Your task to perform on an android device: Search for "dell xps" on amazon, select the first entry, add it to the cart, then select checkout. Image 0: 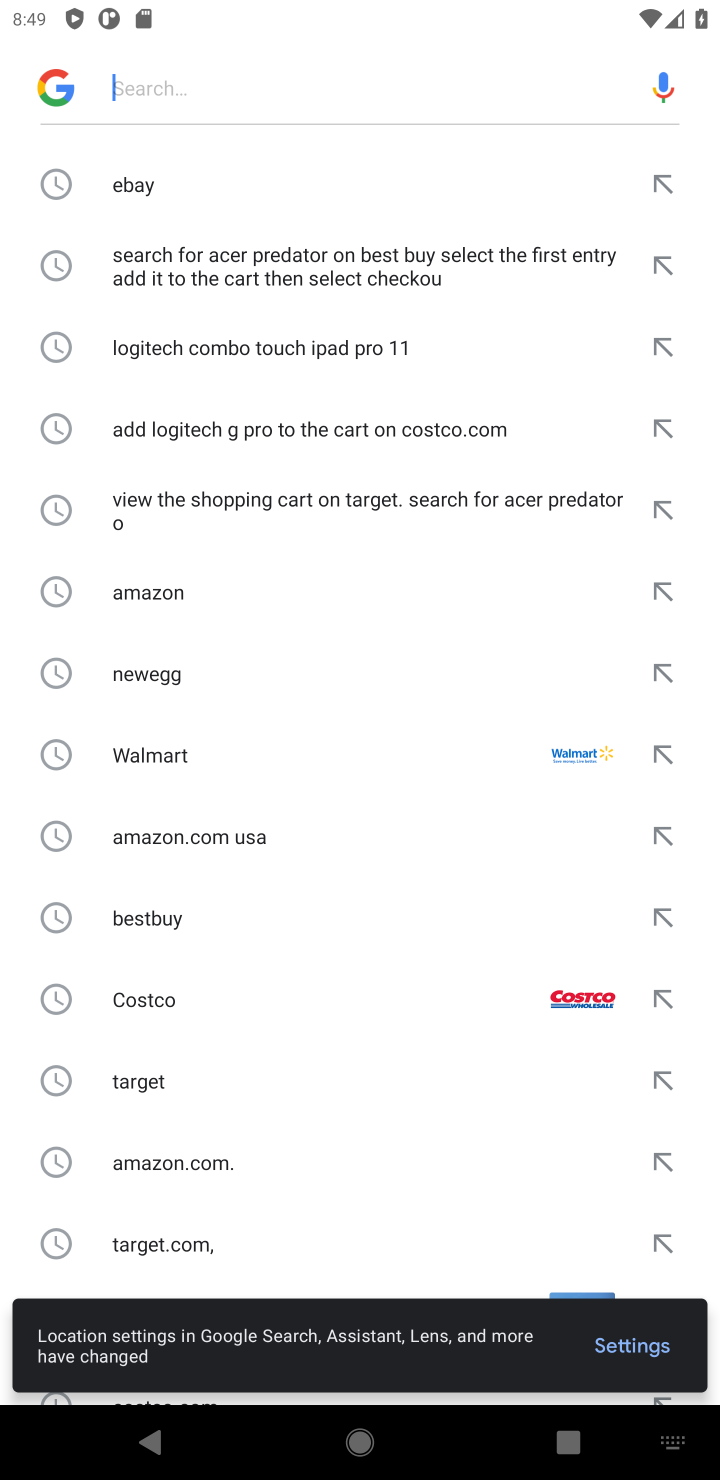
Step 0: press home button
Your task to perform on an android device: Search for "dell xps" on amazon, select the first entry, add it to the cart, then select checkout. Image 1: 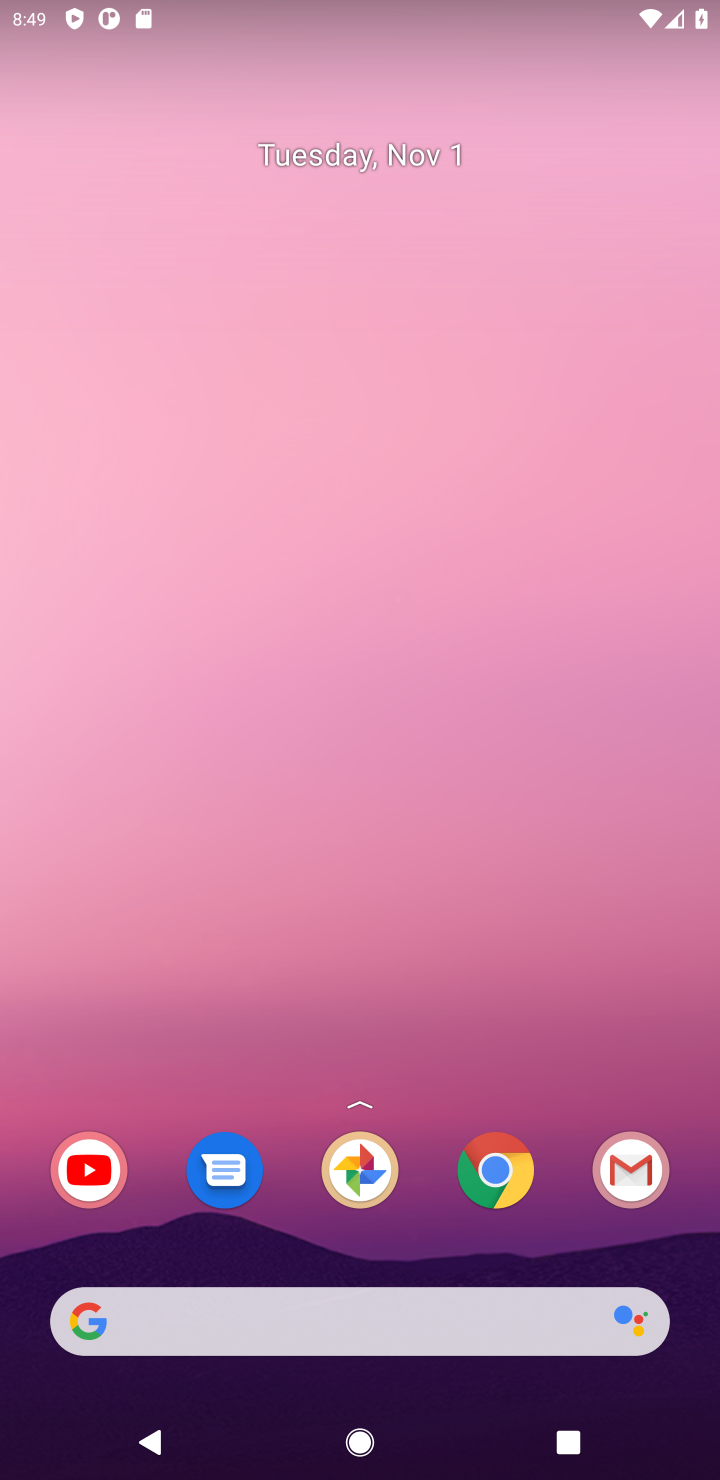
Step 1: click (510, 1176)
Your task to perform on an android device: Search for "dell xps" on amazon, select the first entry, add it to the cart, then select checkout. Image 2: 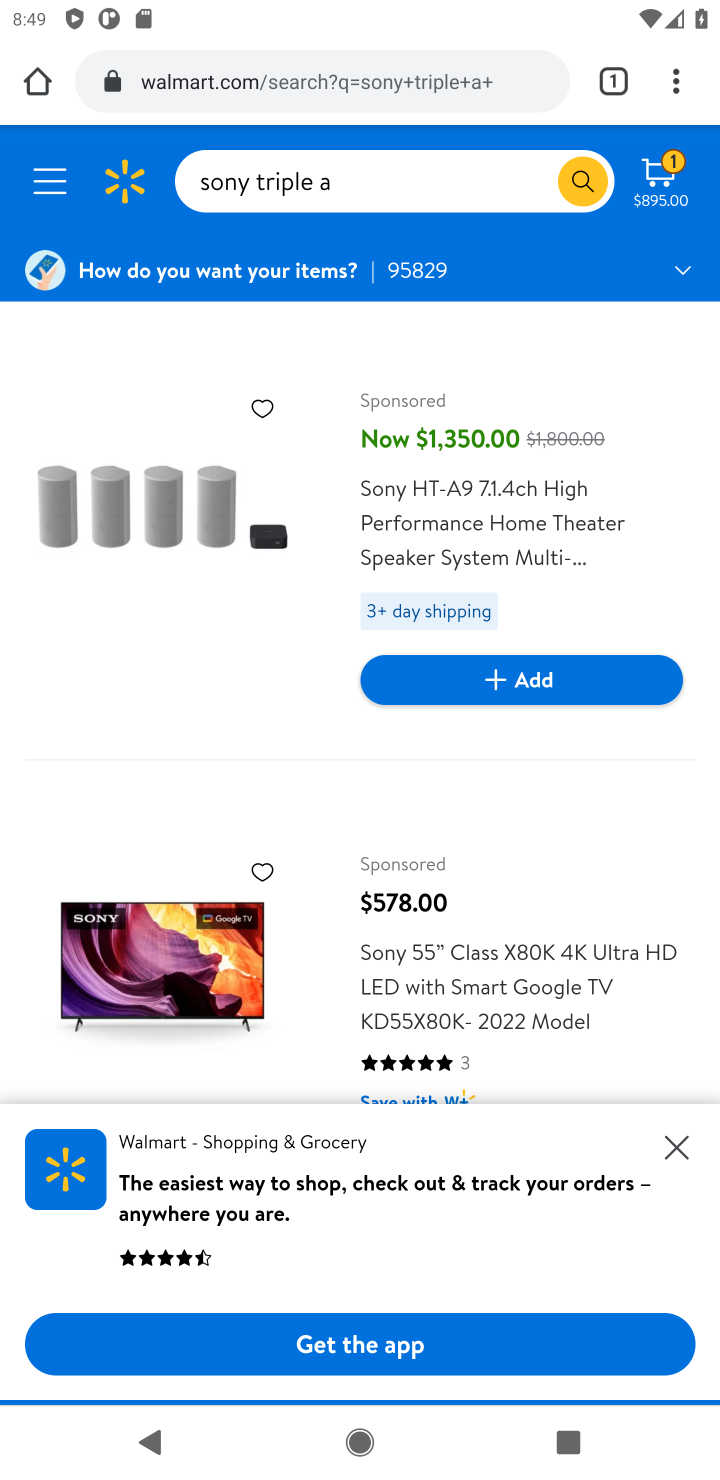
Step 2: click (333, 91)
Your task to perform on an android device: Search for "dell xps" on amazon, select the first entry, add it to the cart, then select checkout. Image 3: 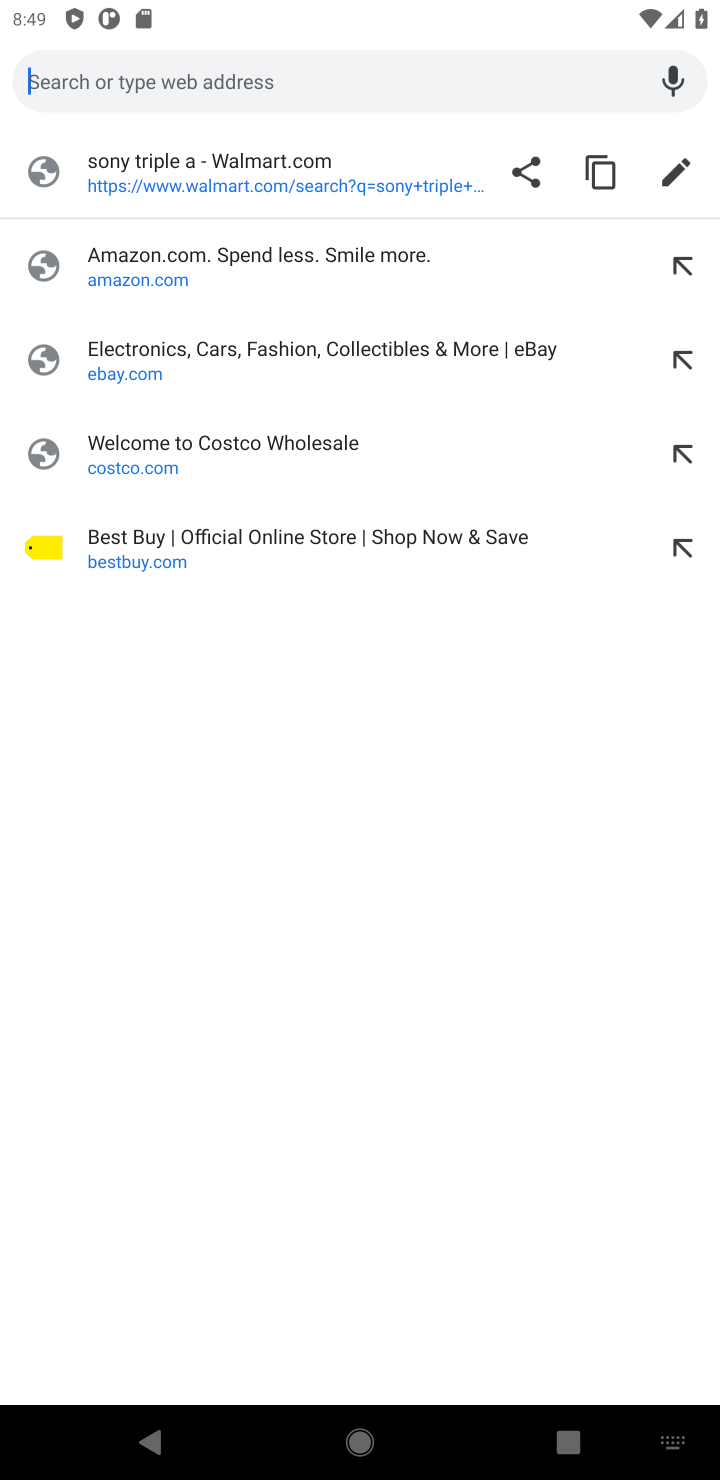
Step 3: type "amazon"
Your task to perform on an android device: Search for "dell xps" on amazon, select the first entry, add it to the cart, then select checkout. Image 4: 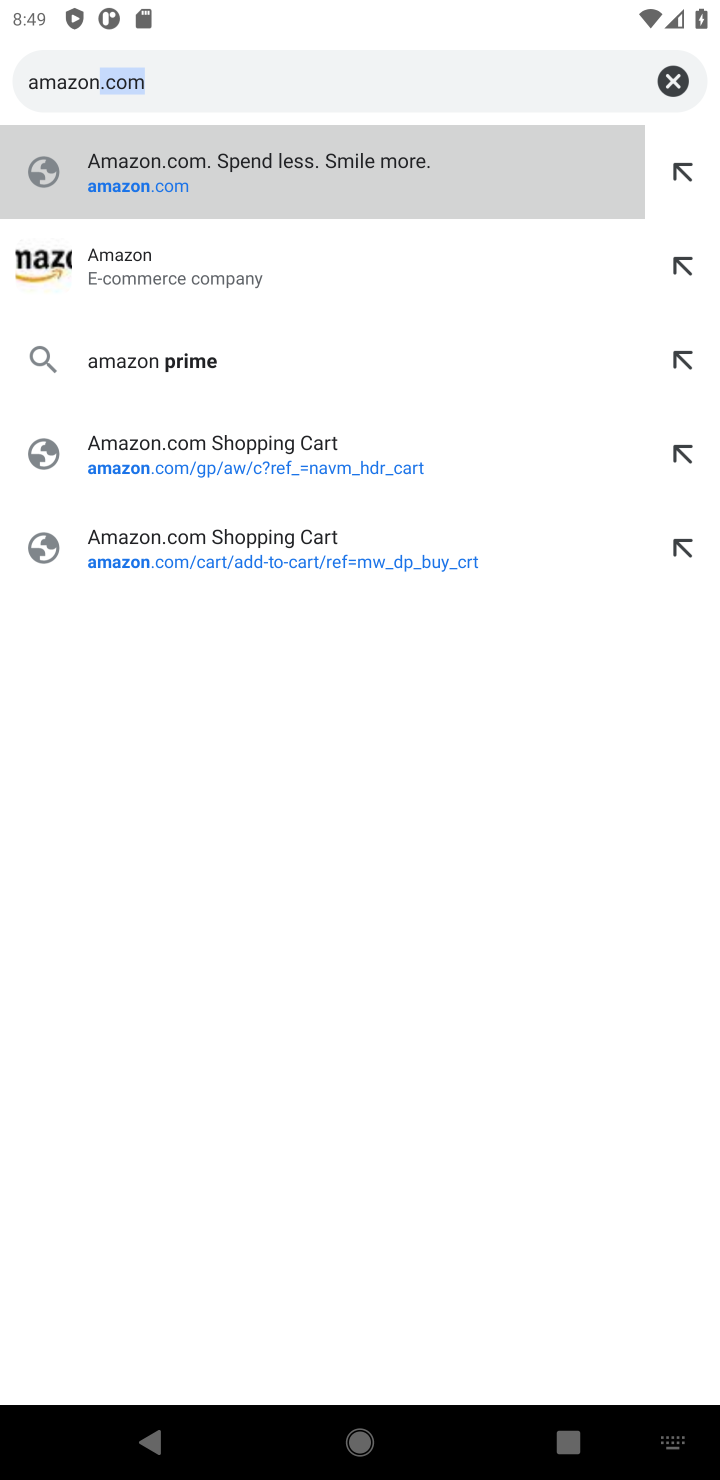
Step 4: type ""
Your task to perform on an android device: Search for "dell xps" on amazon, select the first entry, add it to the cart, then select checkout. Image 5: 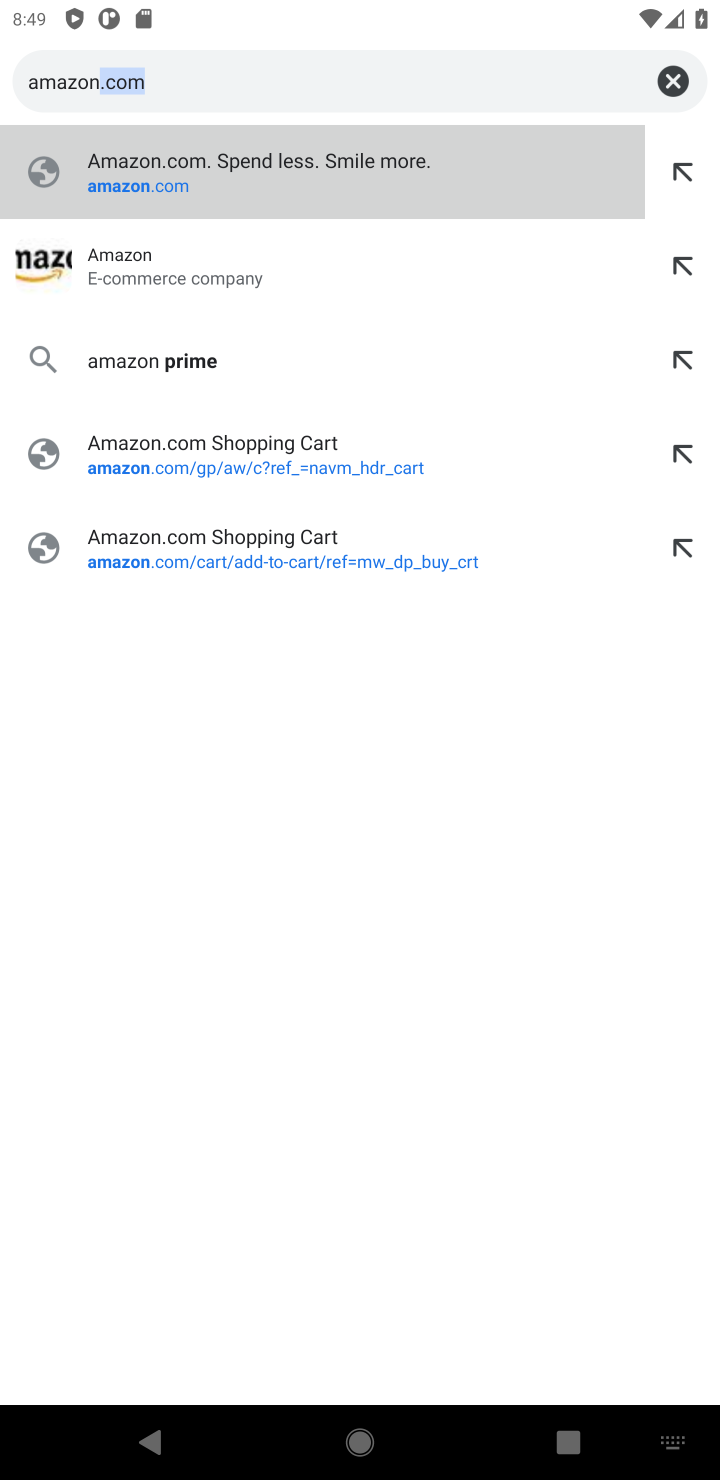
Step 5: press enter
Your task to perform on an android device: Search for "dell xps" on amazon, select the first entry, add it to the cart, then select checkout. Image 6: 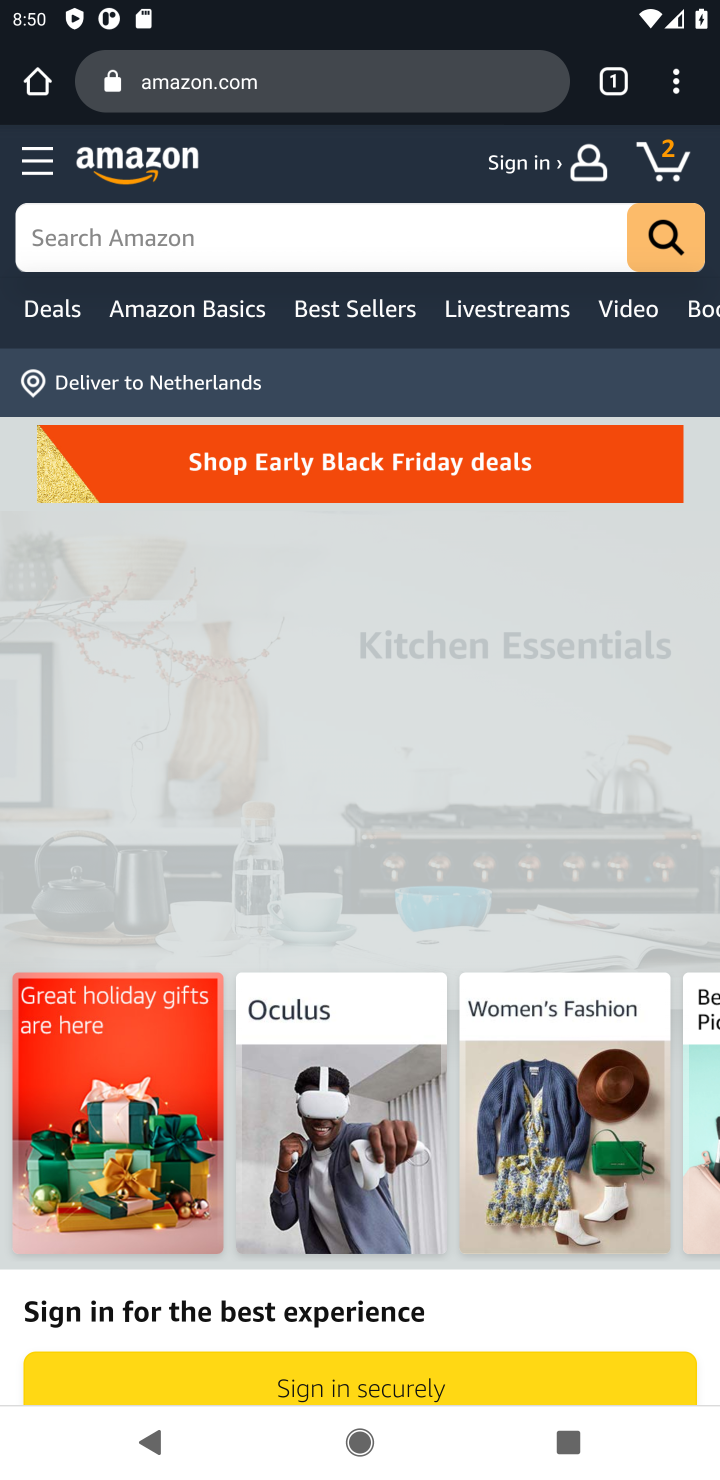
Step 6: click (230, 239)
Your task to perform on an android device: Search for "dell xps" on amazon, select the first entry, add it to the cart, then select checkout. Image 7: 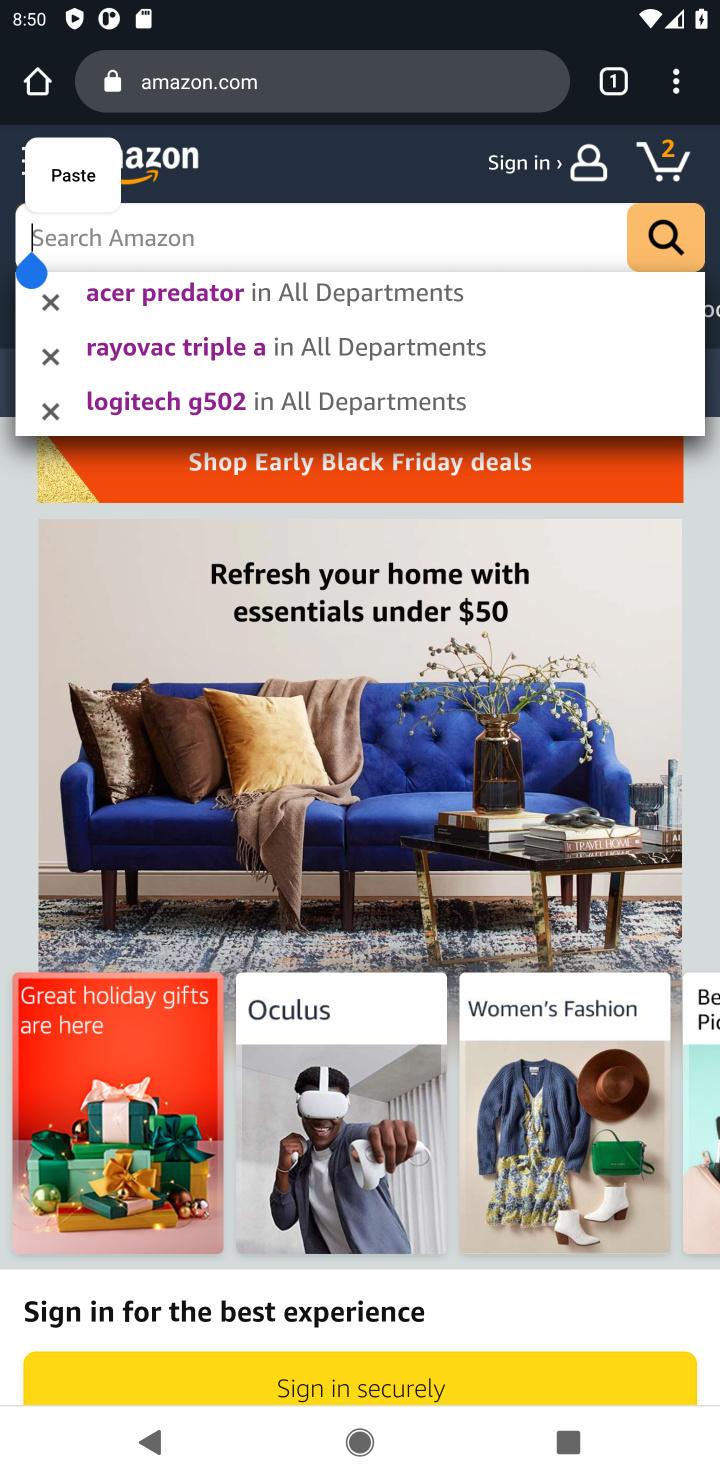
Step 7: type "dell xps"
Your task to perform on an android device: Search for "dell xps" on amazon, select the first entry, add it to the cart, then select checkout. Image 8: 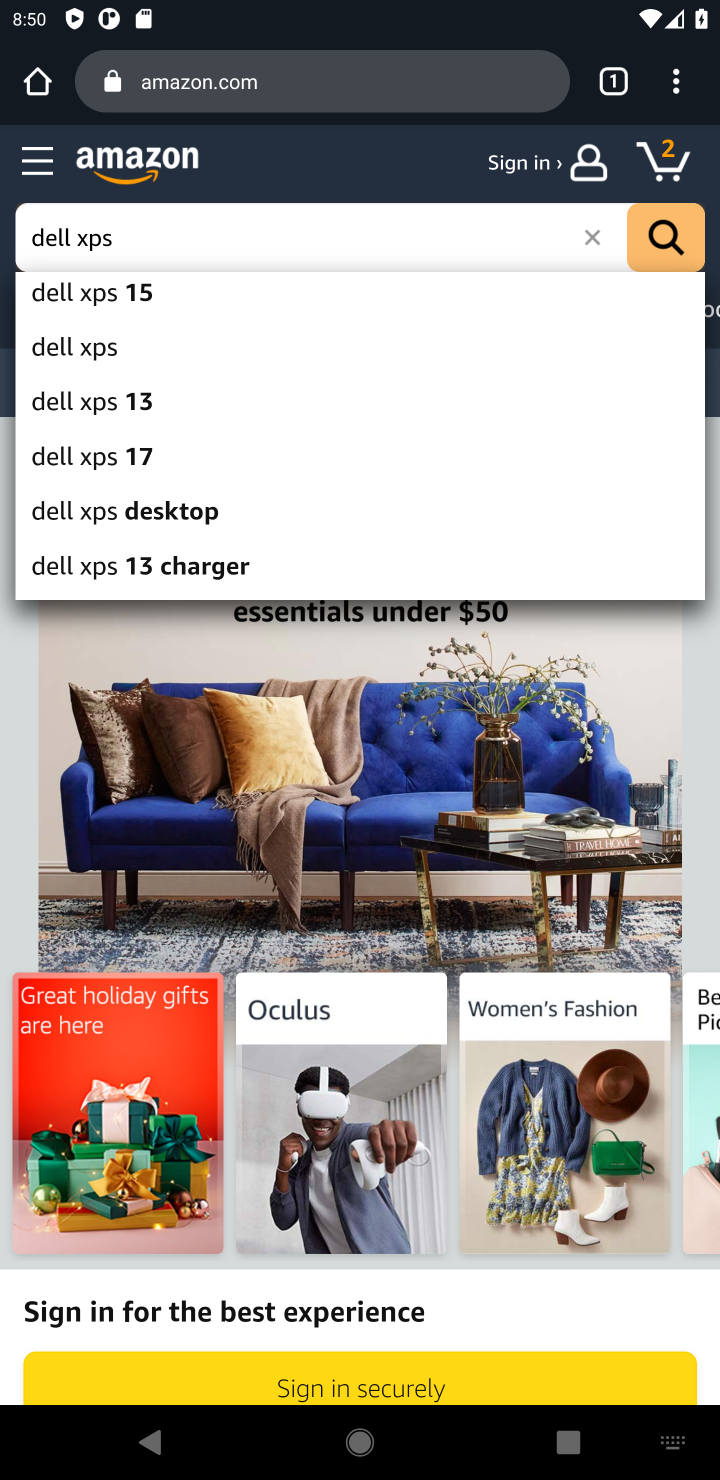
Step 8: press enter
Your task to perform on an android device: Search for "dell xps" on amazon, select the first entry, add it to the cart, then select checkout. Image 9: 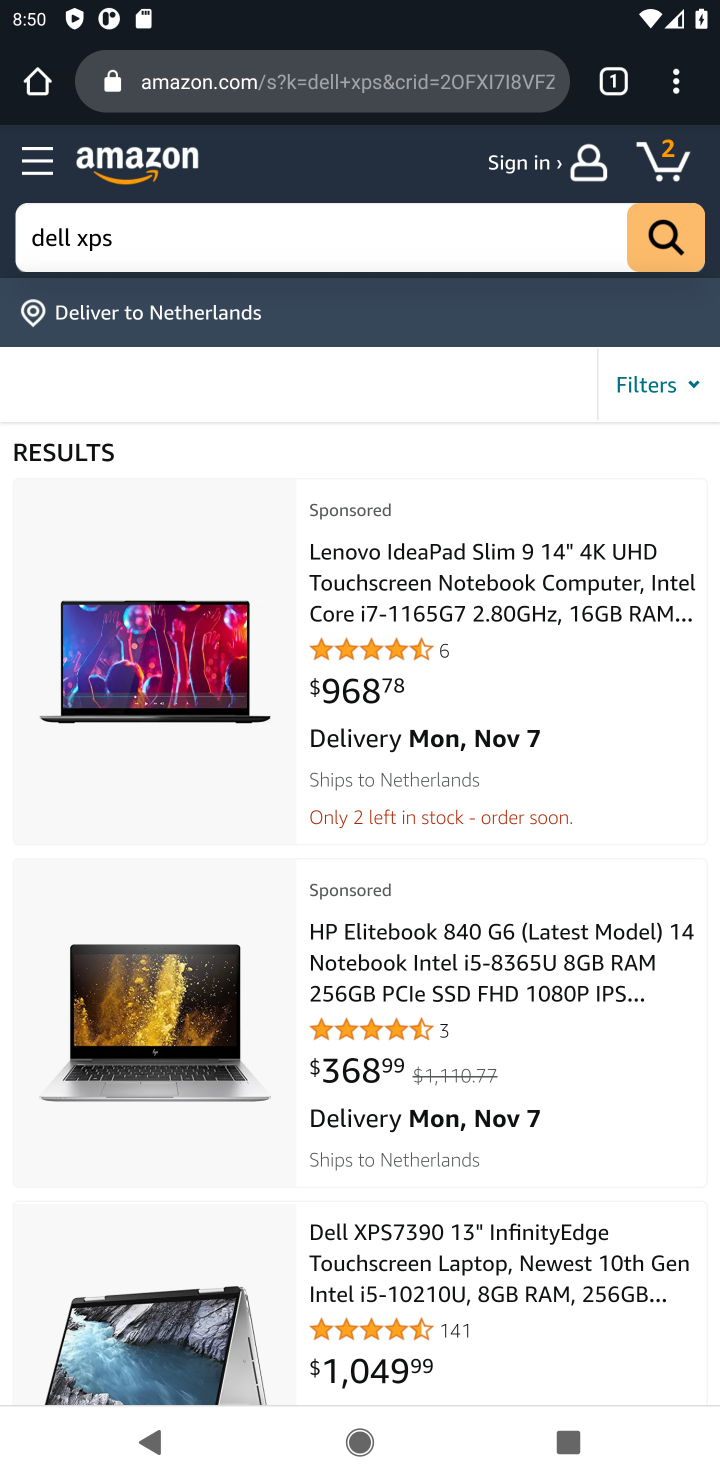
Step 9: drag from (515, 1312) to (519, 984)
Your task to perform on an android device: Search for "dell xps" on amazon, select the first entry, add it to the cart, then select checkout. Image 10: 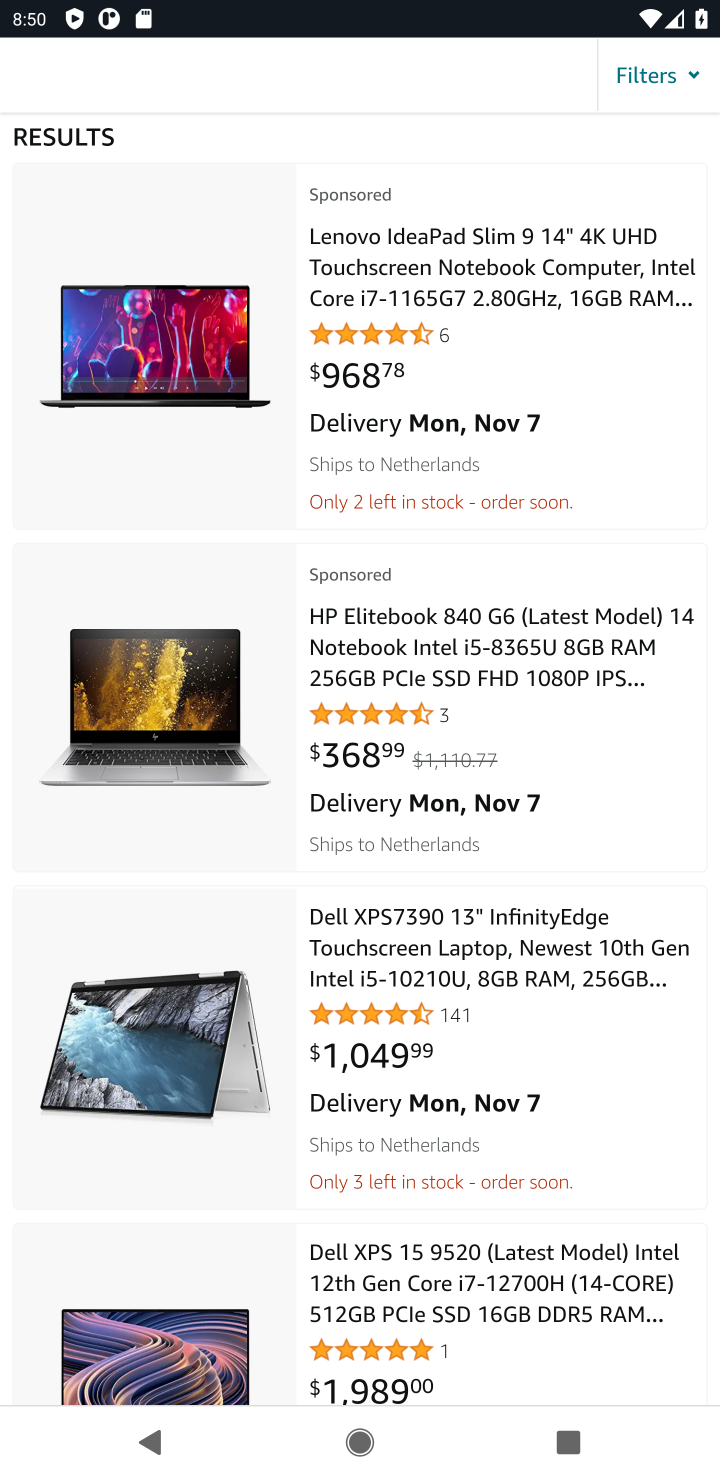
Step 10: click (505, 980)
Your task to perform on an android device: Search for "dell xps" on amazon, select the first entry, add it to the cart, then select checkout. Image 11: 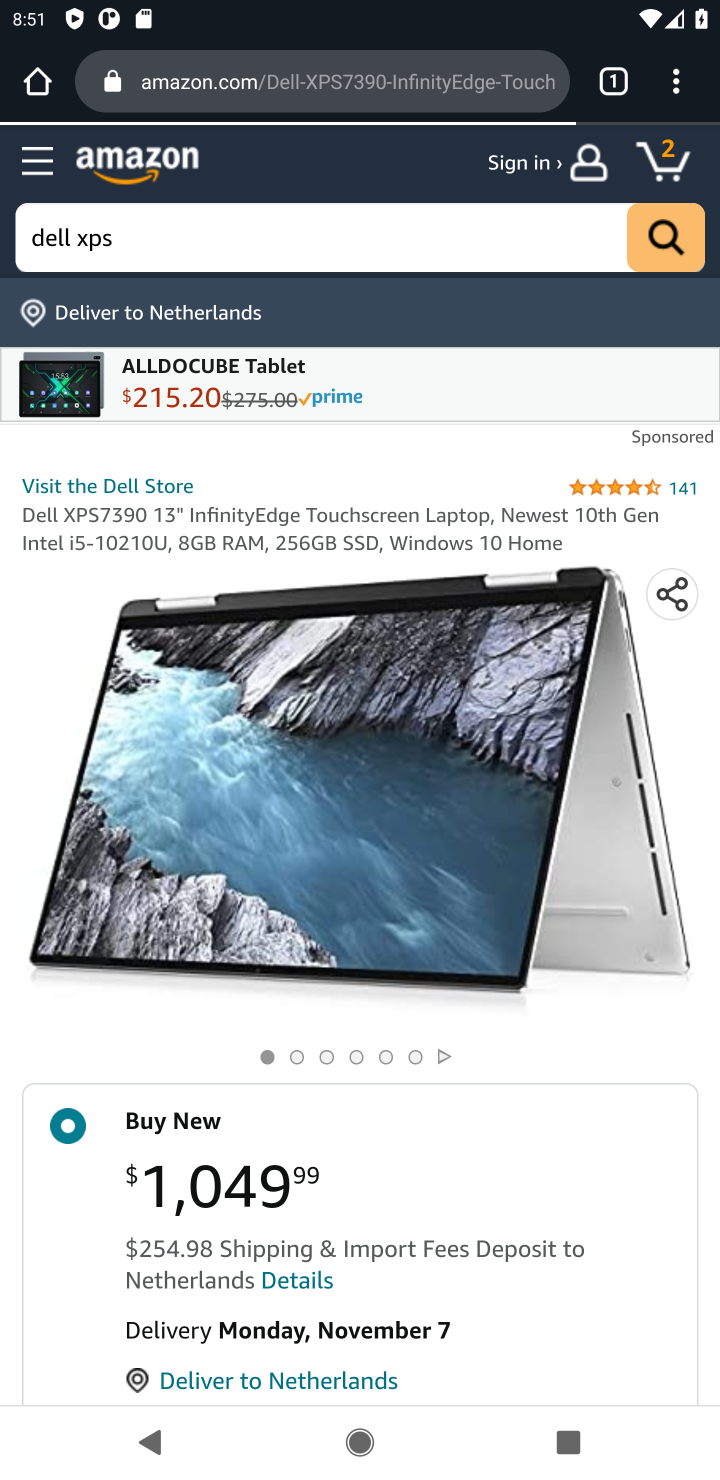
Step 11: drag from (471, 1265) to (365, 495)
Your task to perform on an android device: Search for "dell xps" on amazon, select the first entry, add it to the cart, then select checkout. Image 12: 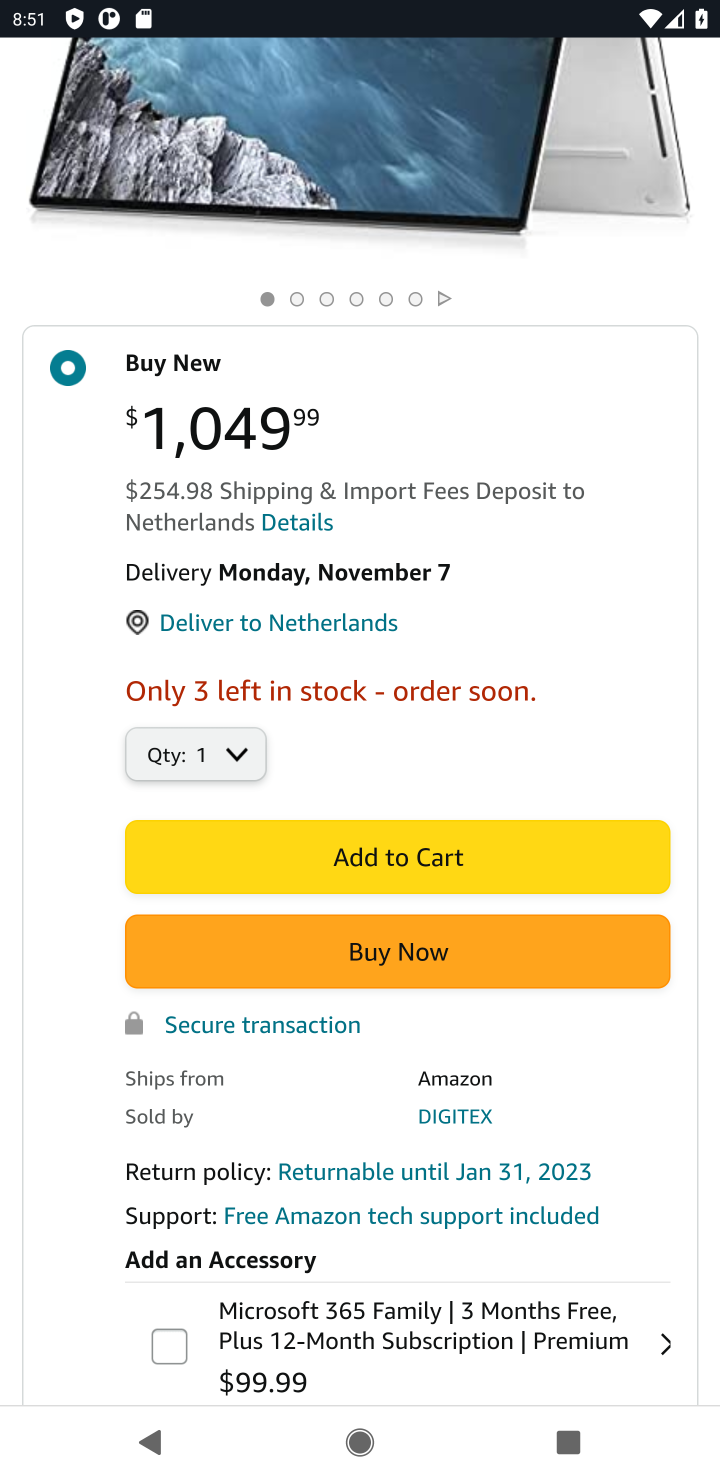
Step 12: click (422, 847)
Your task to perform on an android device: Search for "dell xps" on amazon, select the first entry, add it to the cart, then select checkout. Image 13: 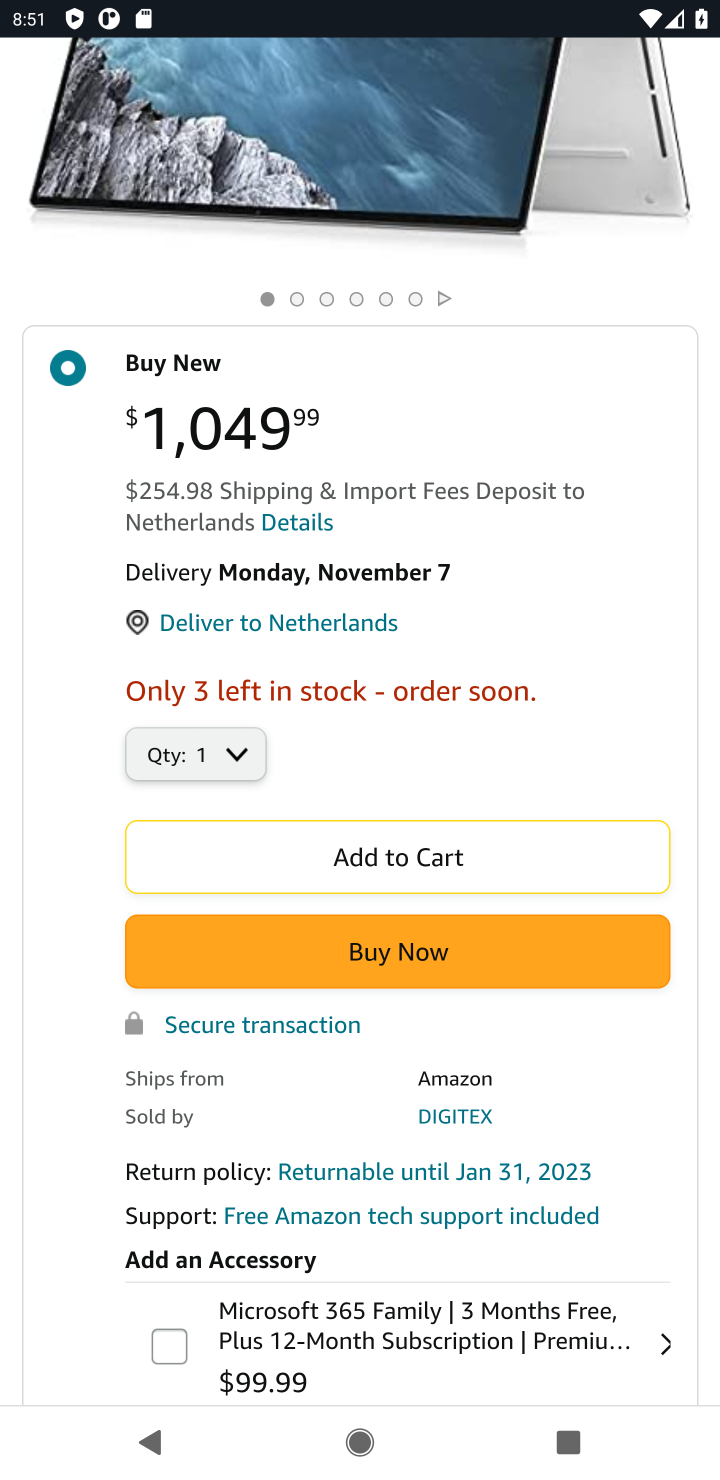
Step 13: click (485, 873)
Your task to perform on an android device: Search for "dell xps" on amazon, select the first entry, add it to the cart, then select checkout. Image 14: 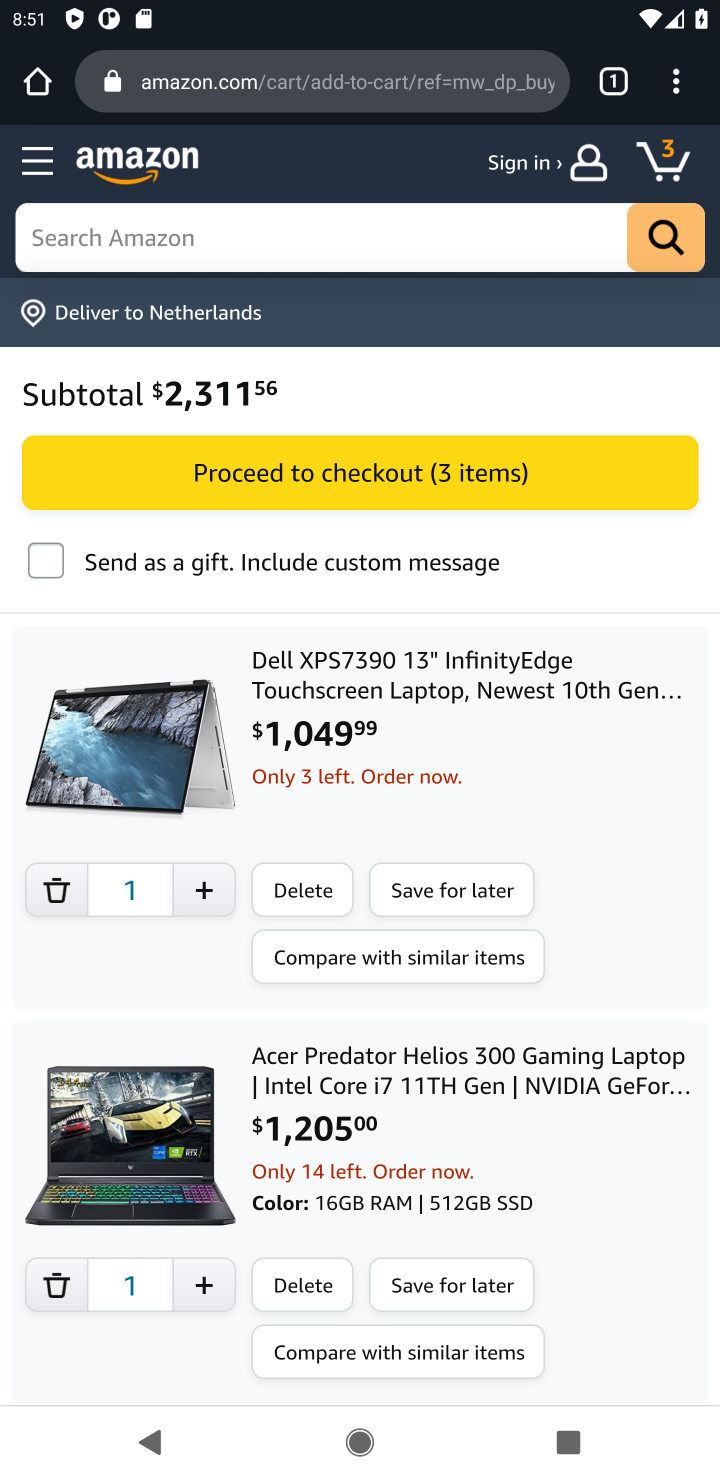
Step 14: click (521, 472)
Your task to perform on an android device: Search for "dell xps" on amazon, select the first entry, add it to the cart, then select checkout. Image 15: 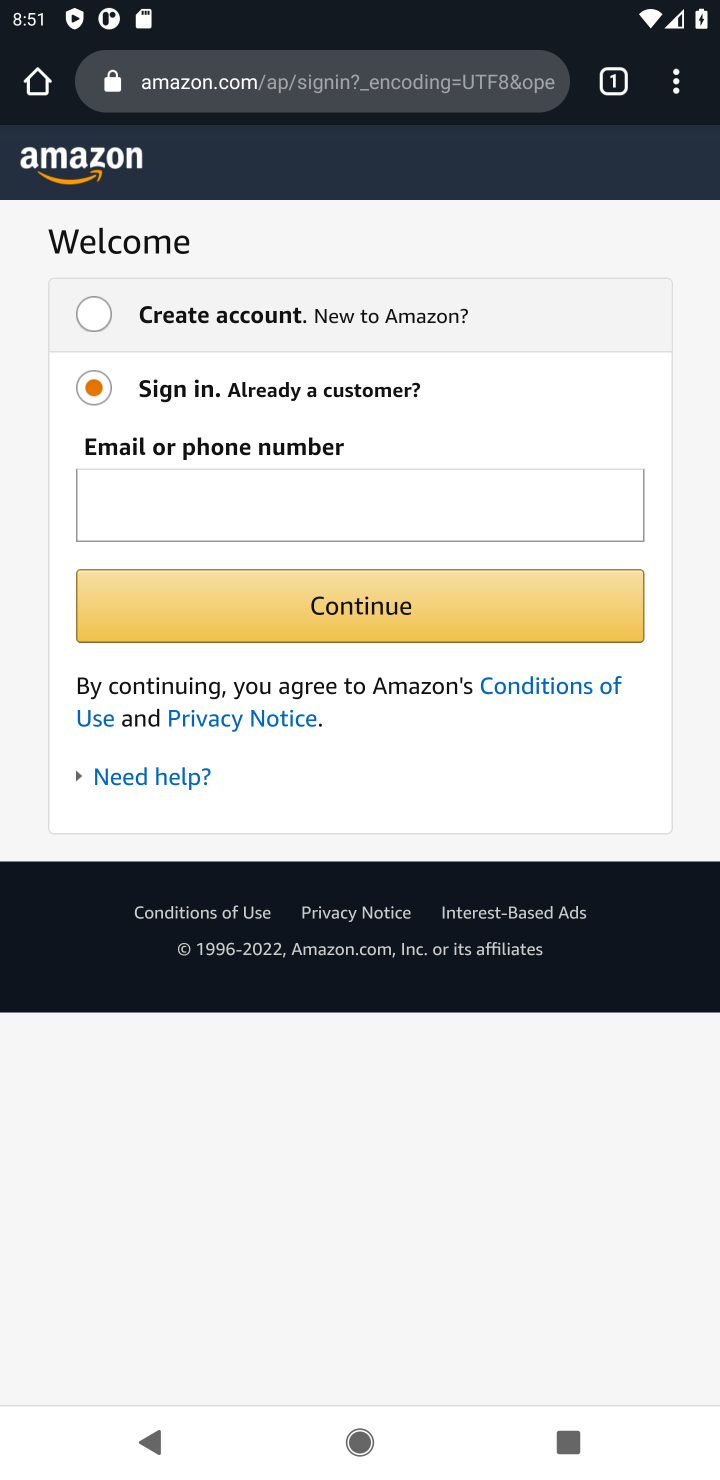
Step 15: task complete